Your task to perform on an android device: turn on sleep mode Image 0: 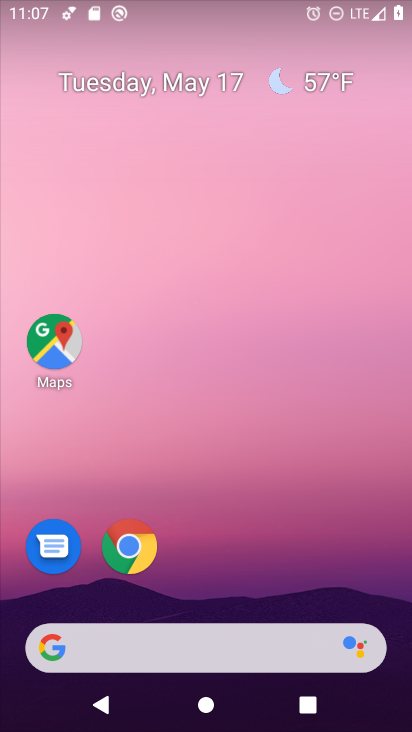
Step 0: drag from (337, 567) to (330, 2)
Your task to perform on an android device: turn on sleep mode Image 1: 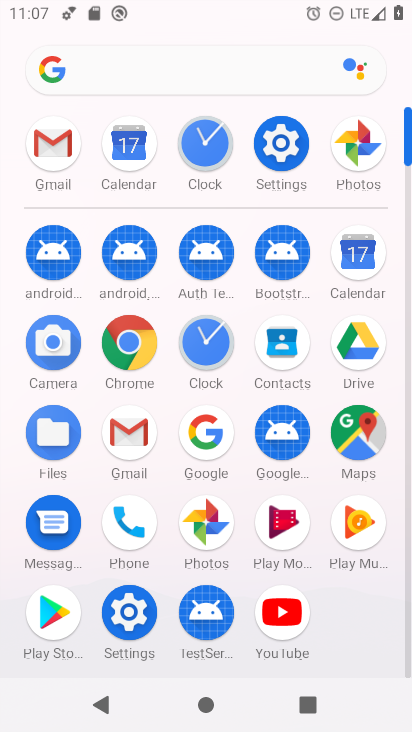
Step 1: click (287, 151)
Your task to perform on an android device: turn on sleep mode Image 2: 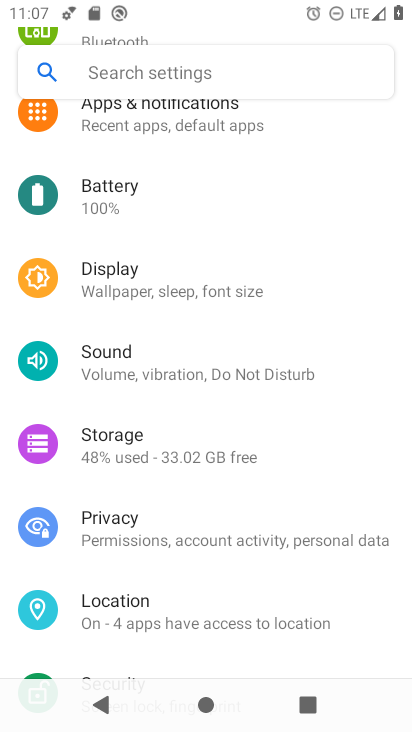
Step 2: click (104, 287)
Your task to perform on an android device: turn on sleep mode Image 3: 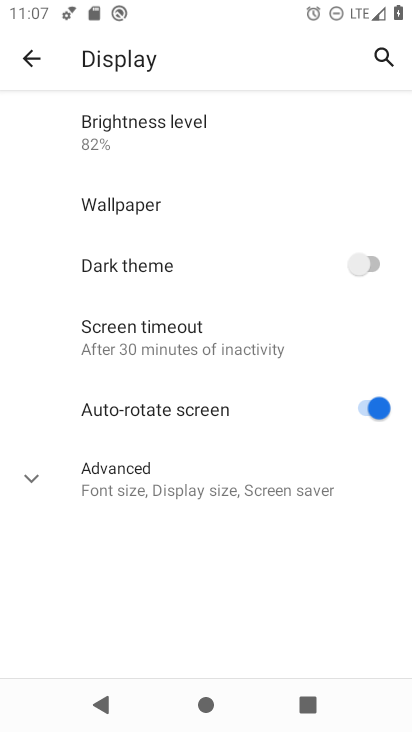
Step 3: click (32, 487)
Your task to perform on an android device: turn on sleep mode Image 4: 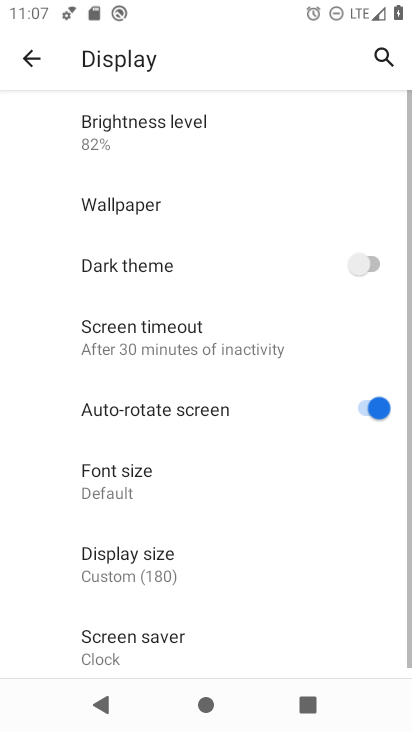
Step 4: task complete